Your task to perform on an android device: Search for Mexican restaurants on Maps Image 0: 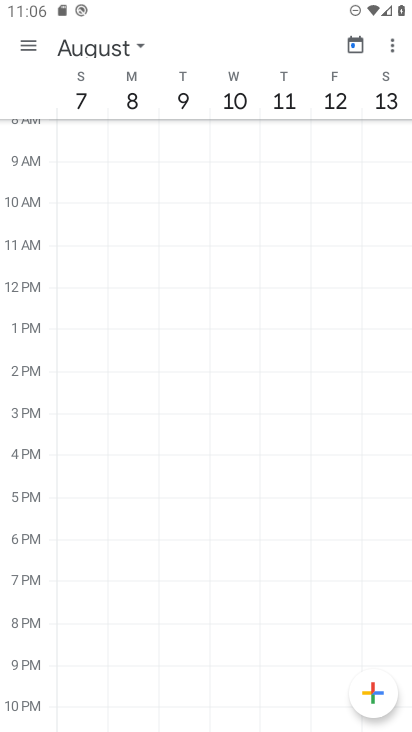
Step 0: press home button
Your task to perform on an android device: Search for Mexican restaurants on Maps Image 1: 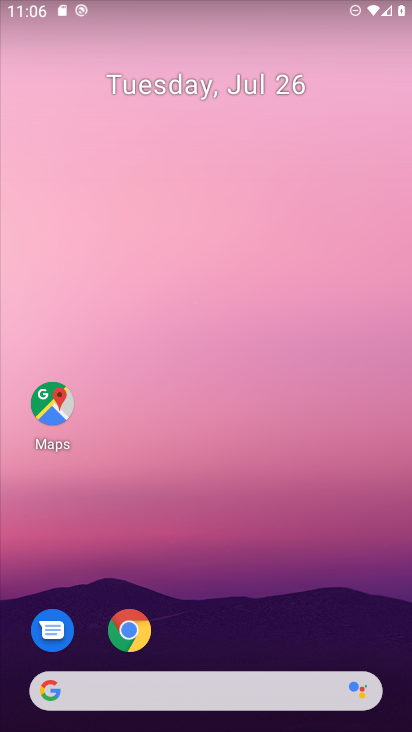
Step 1: click (53, 405)
Your task to perform on an android device: Search for Mexican restaurants on Maps Image 2: 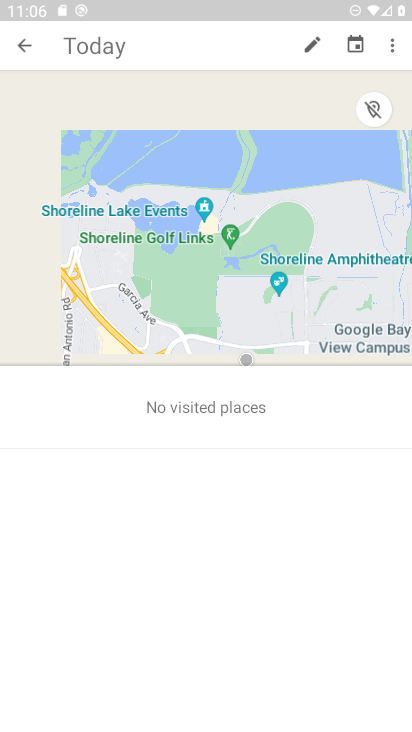
Step 2: press back button
Your task to perform on an android device: Search for Mexican restaurants on Maps Image 3: 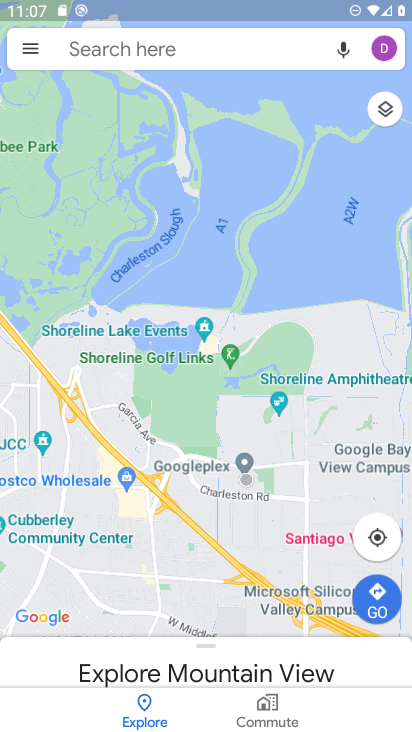
Step 3: click (122, 46)
Your task to perform on an android device: Search for Mexican restaurants on Maps Image 4: 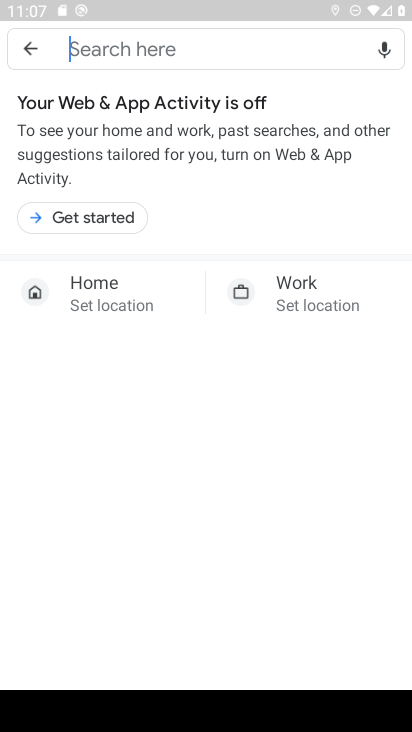
Step 4: type "mexican restaurants"
Your task to perform on an android device: Search for Mexican restaurants on Maps Image 5: 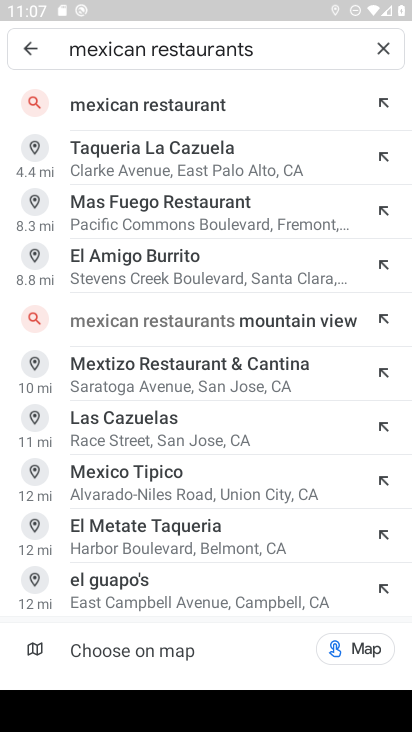
Step 5: click (130, 101)
Your task to perform on an android device: Search for Mexican restaurants on Maps Image 6: 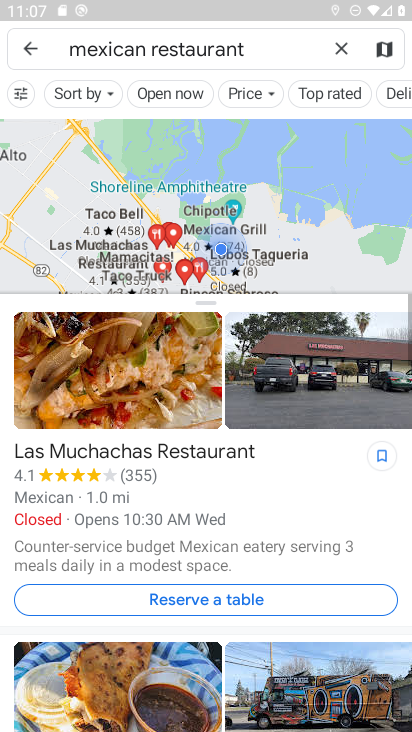
Step 6: task complete